Your task to perform on an android device: Search for the best rated desk chair on Article.com Image 0: 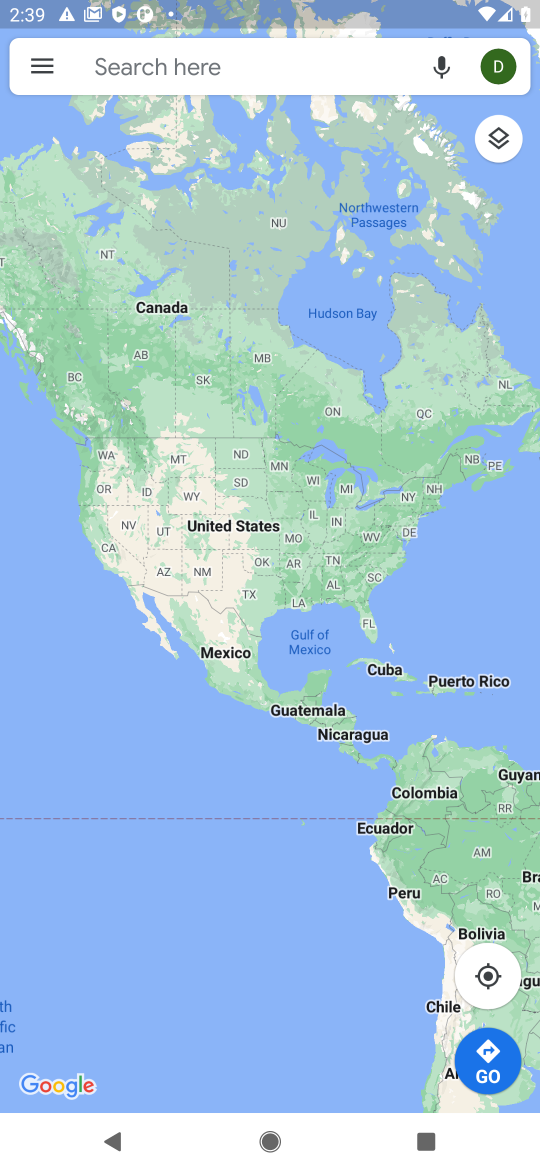
Step 0: press home button
Your task to perform on an android device: Search for the best rated desk chair on Article.com Image 1: 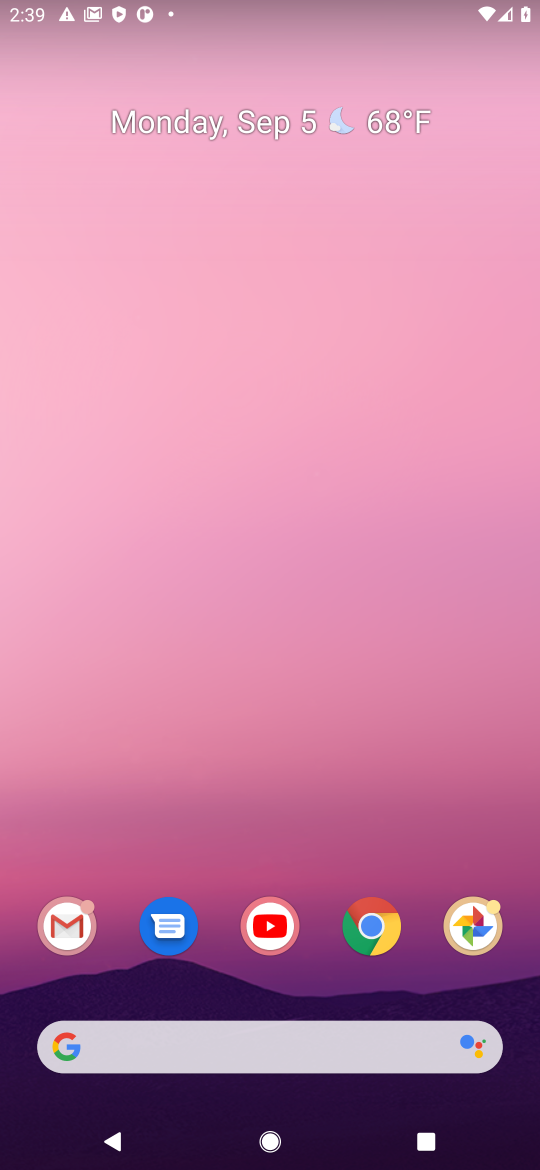
Step 1: click (376, 931)
Your task to perform on an android device: Search for the best rated desk chair on Article.com Image 2: 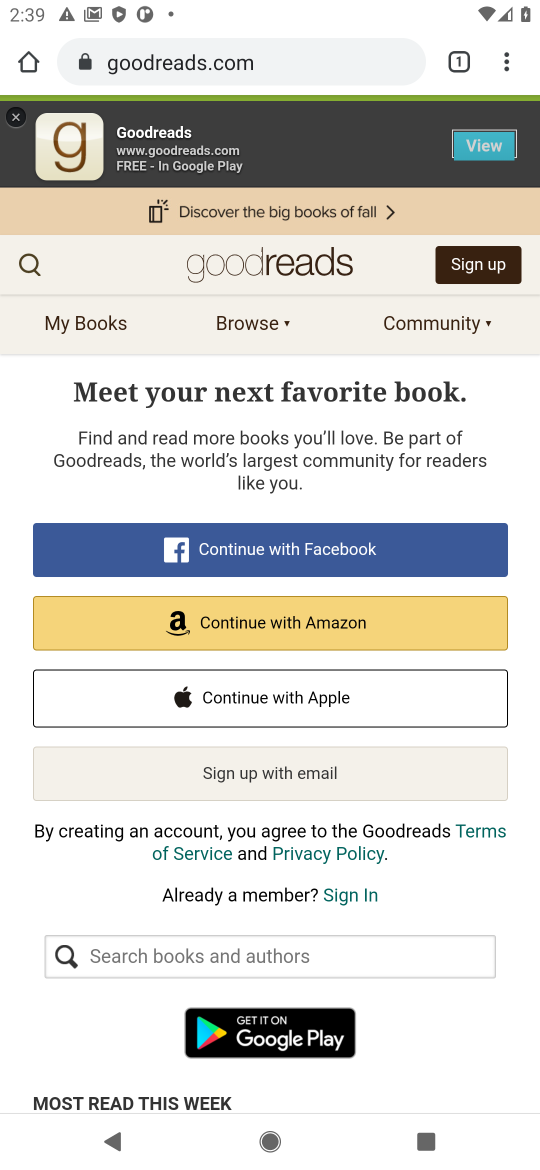
Step 2: click (262, 62)
Your task to perform on an android device: Search for the best rated desk chair on Article.com Image 3: 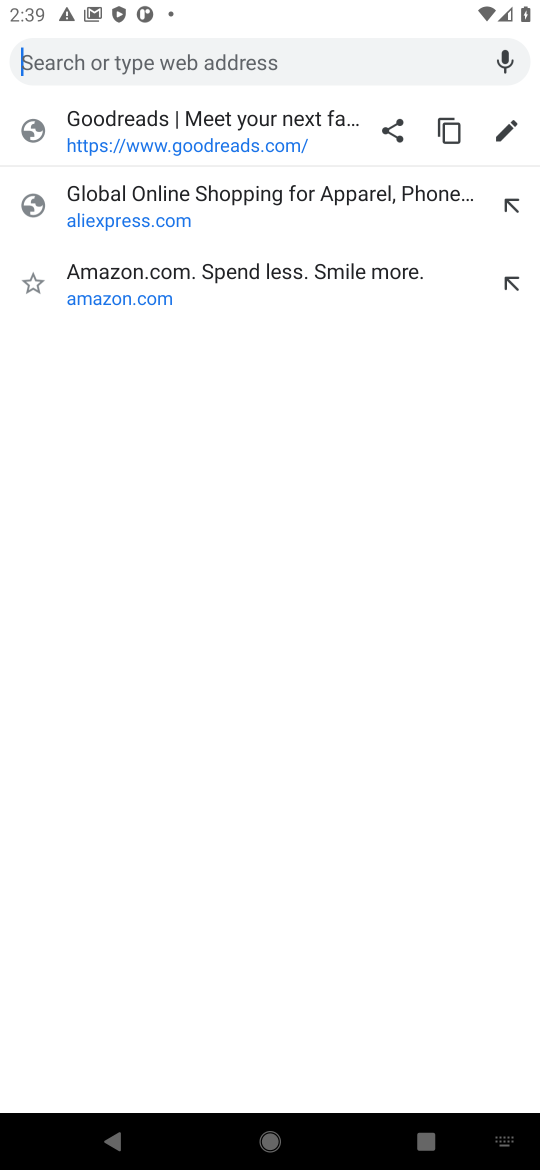
Step 3: type "article.com"
Your task to perform on an android device: Search for the best rated desk chair on Article.com Image 4: 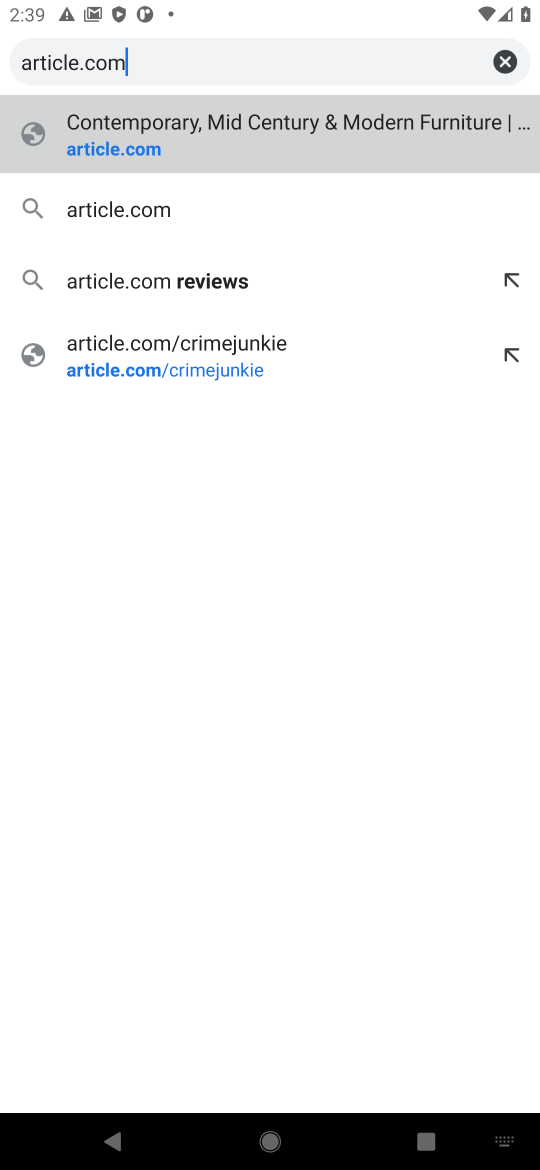
Step 4: click (317, 138)
Your task to perform on an android device: Search for the best rated desk chair on Article.com Image 5: 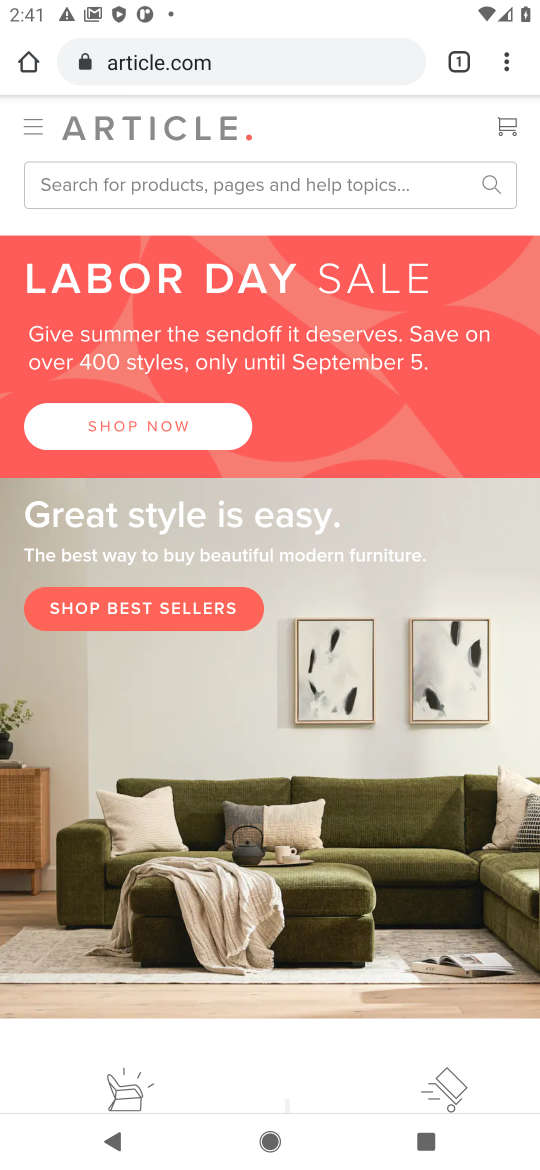
Step 5: click (316, 185)
Your task to perform on an android device: Search for the best rated desk chair on Article.com Image 6: 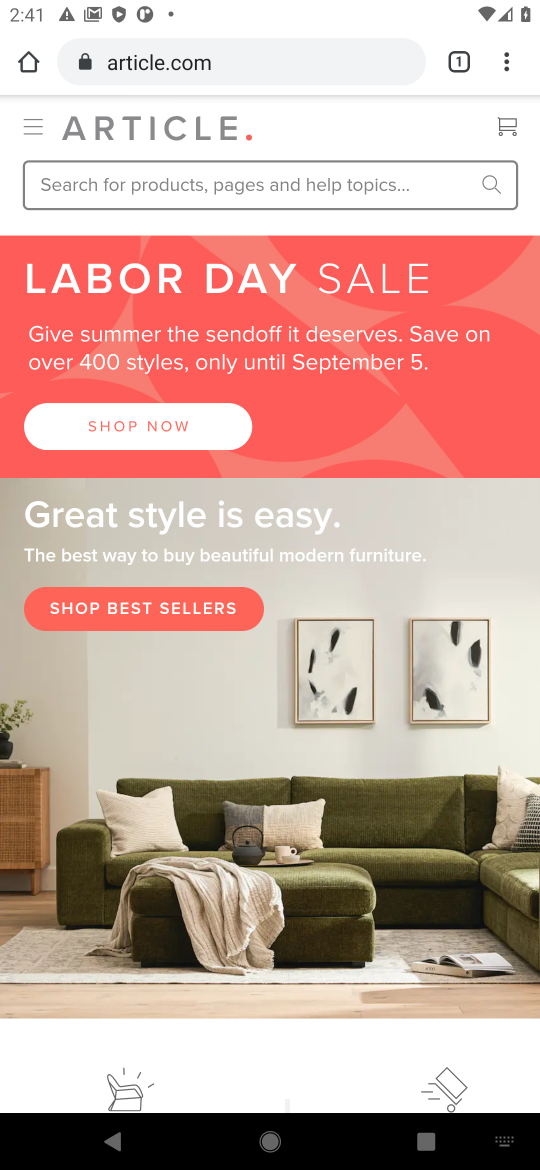
Step 6: type "best rated desk chair"
Your task to perform on an android device: Search for the best rated desk chair on Article.com Image 7: 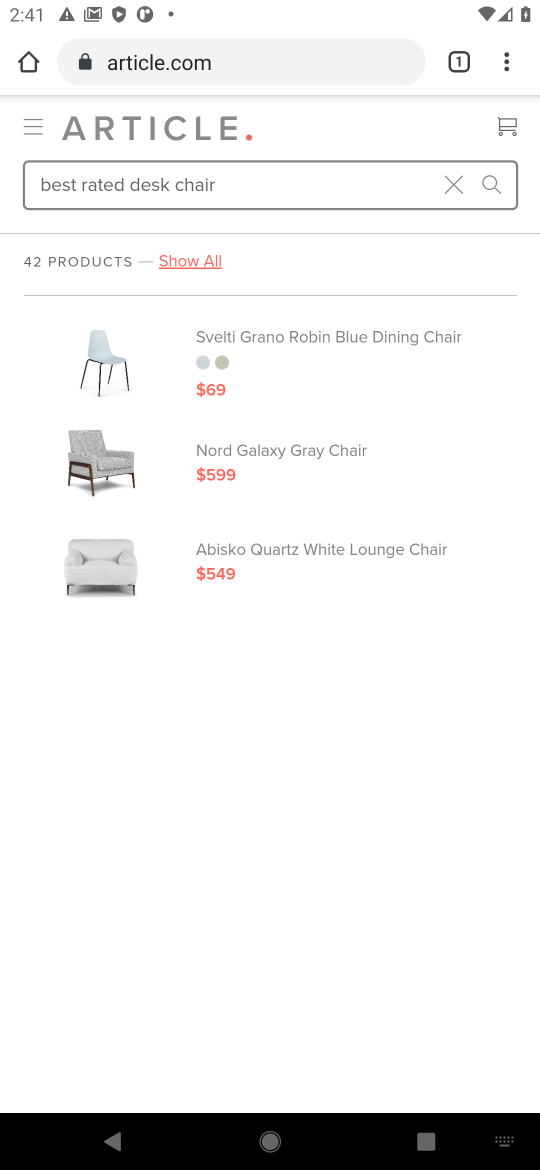
Step 7: task complete